Your task to perform on an android device: Open the calendar and show me this week's events? Image 0: 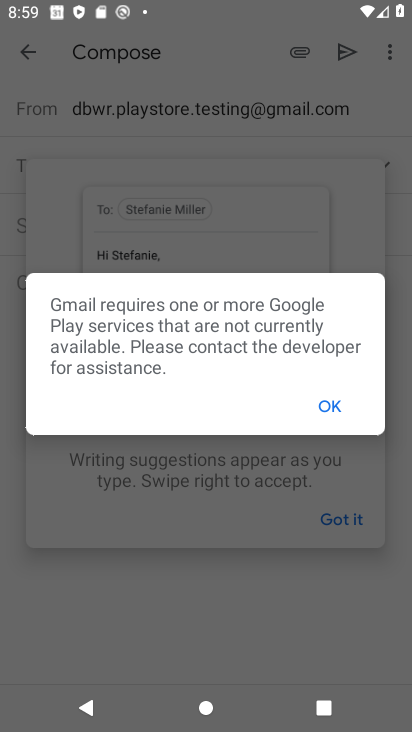
Step 0: press home button
Your task to perform on an android device: Open the calendar and show me this week's events? Image 1: 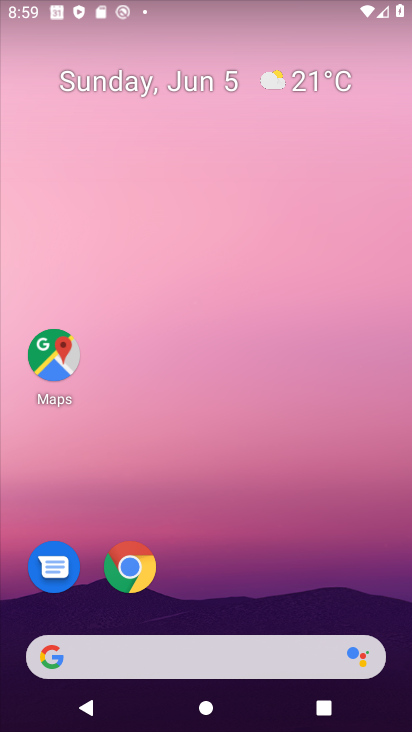
Step 1: drag from (214, 630) to (208, 360)
Your task to perform on an android device: Open the calendar and show me this week's events? Image 2: 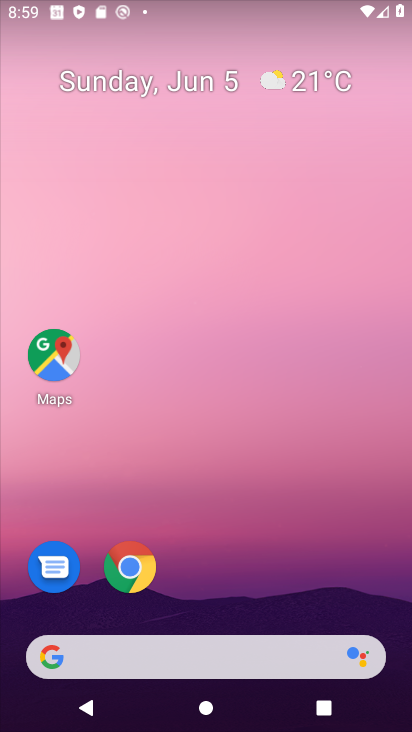
Step 2: drag from (178, 455) to (186, 288)
Your task to perform on an android device: Open the calendar and show me this week's events? Image 3: 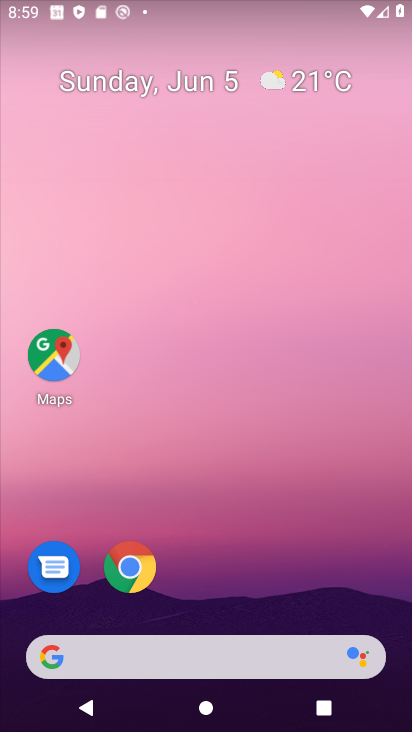
Step 3: drag from (184, 637) to (220, 290)
Your task to perform on an android device: Open the calendar and show me this week's events? Image 4: 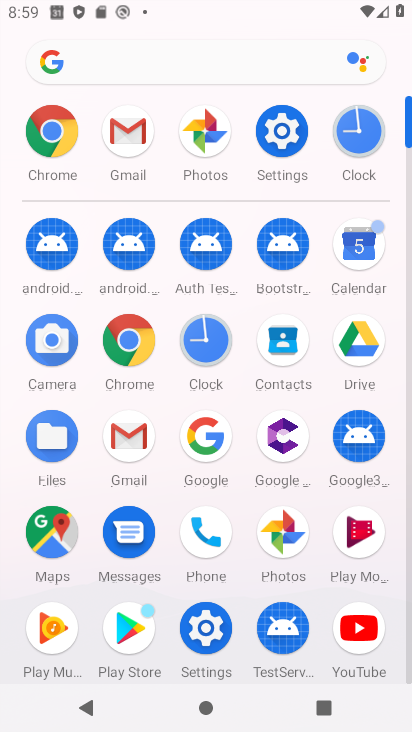
Step 4: click (351, 248)
Your task to perform on an android device: Open the calendar and show me this week's events? Image 5: 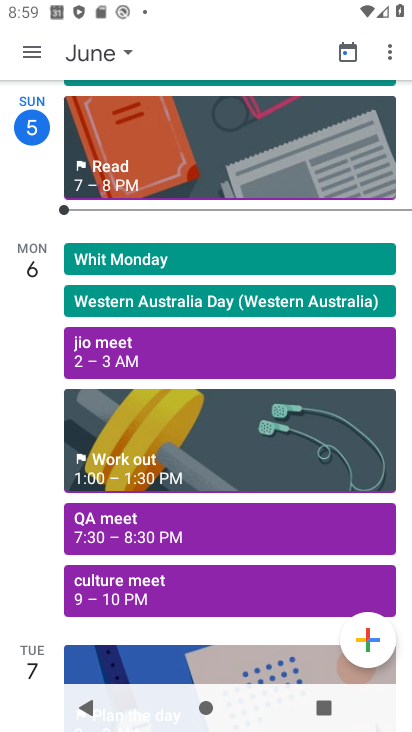
Step 5: task complete